Your task to perform on an android device: allow cookies in the chrome app Image 0: 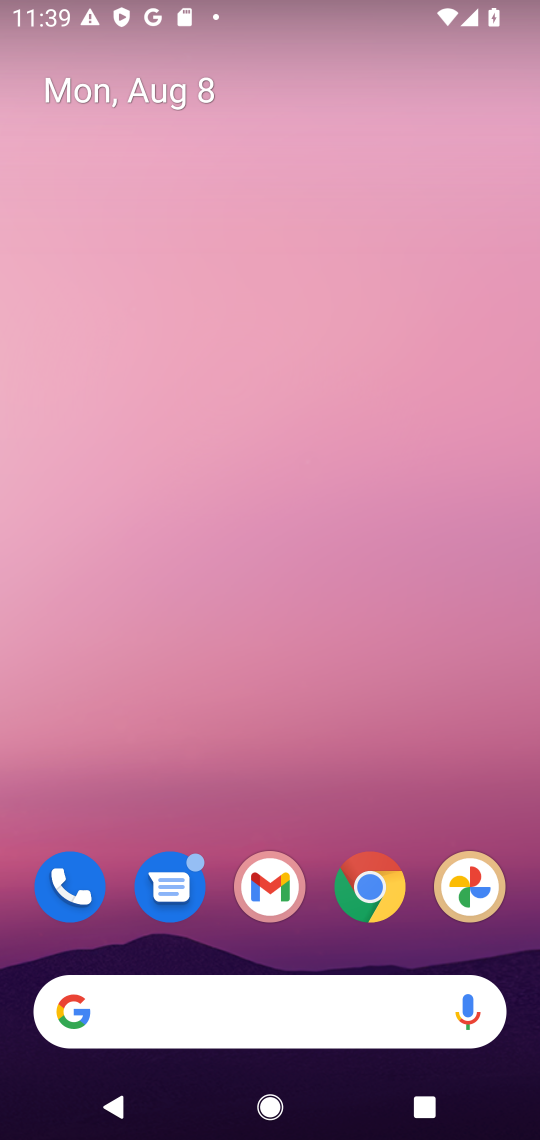
Step 0: click (374, 889)
Your task to perform on an android device: allow cookies in the chrome app Image 1: 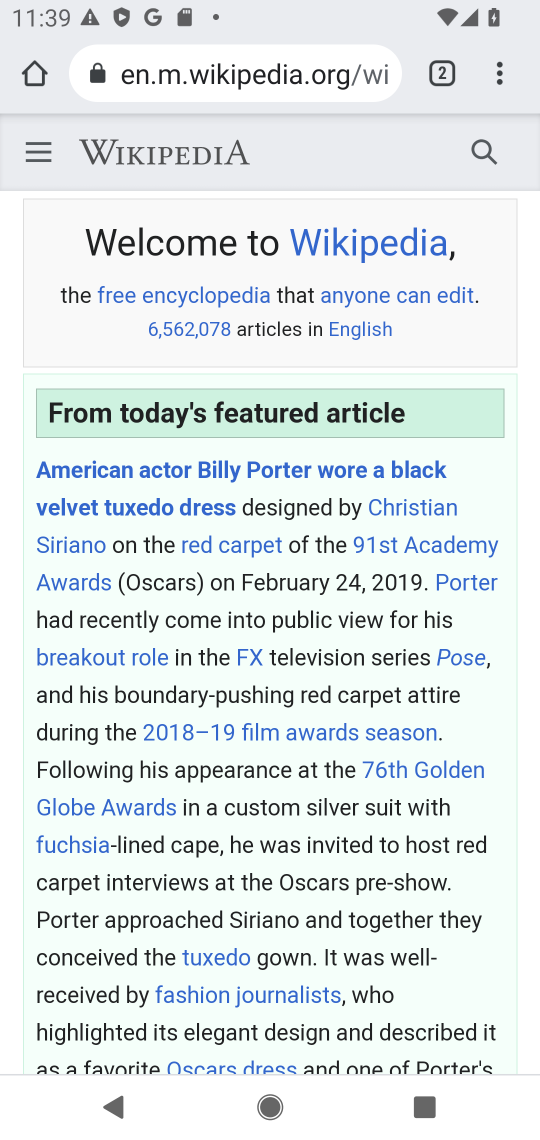
Step 1: click (502, 75)
Your task to perform on an android device: allow cookies in the chrome app Image 2: 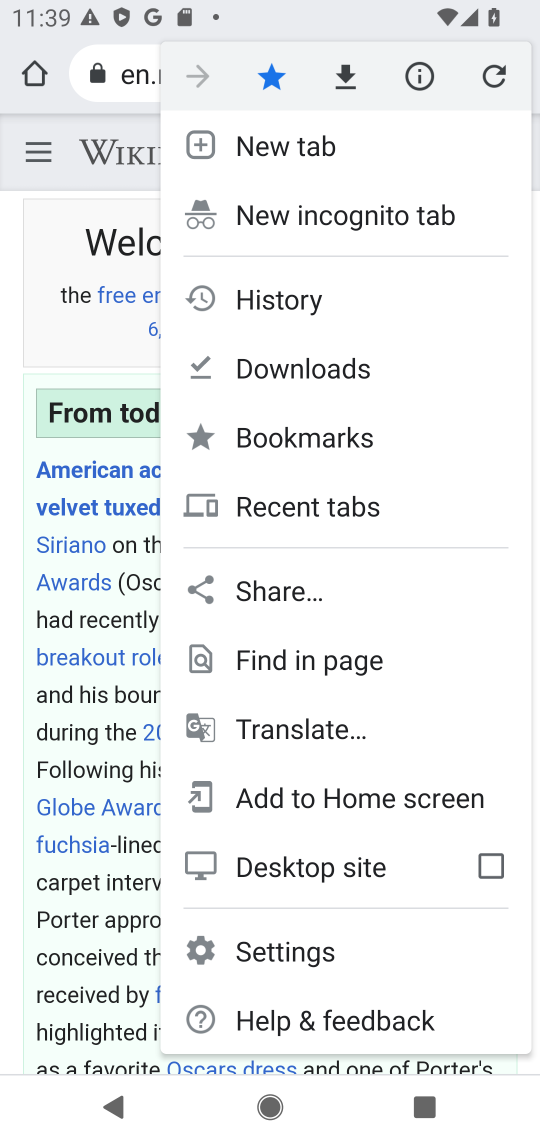
Step 2: click (290, 951)
Your task to perform on an android device: allow cookies in the chrome app Image 3: 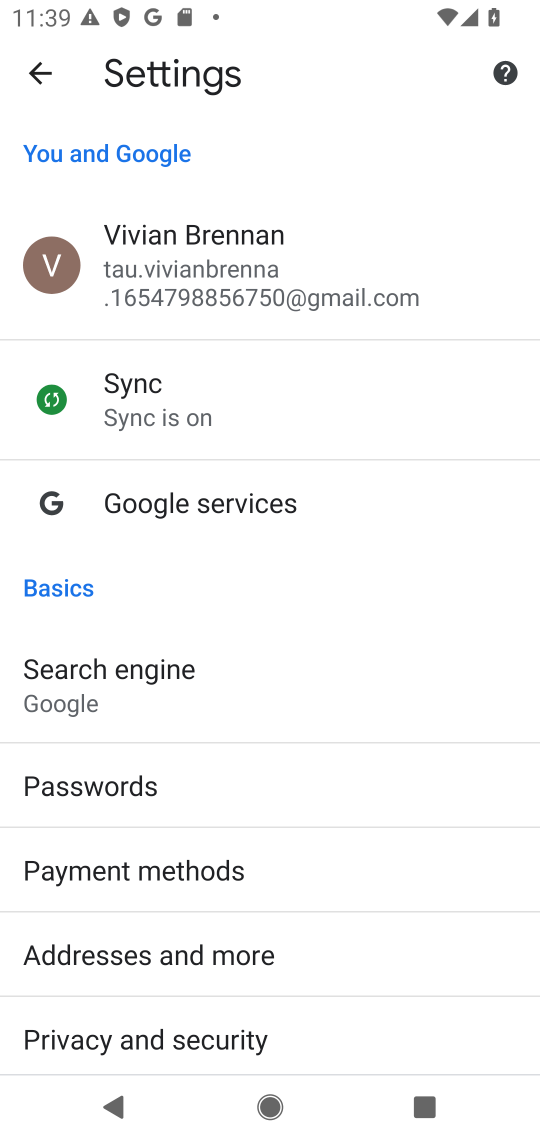
Step 3: drag from (345, 872) to (389, 302)
Your task to perform on an android device: allow cookies in the chrome app Image 4: 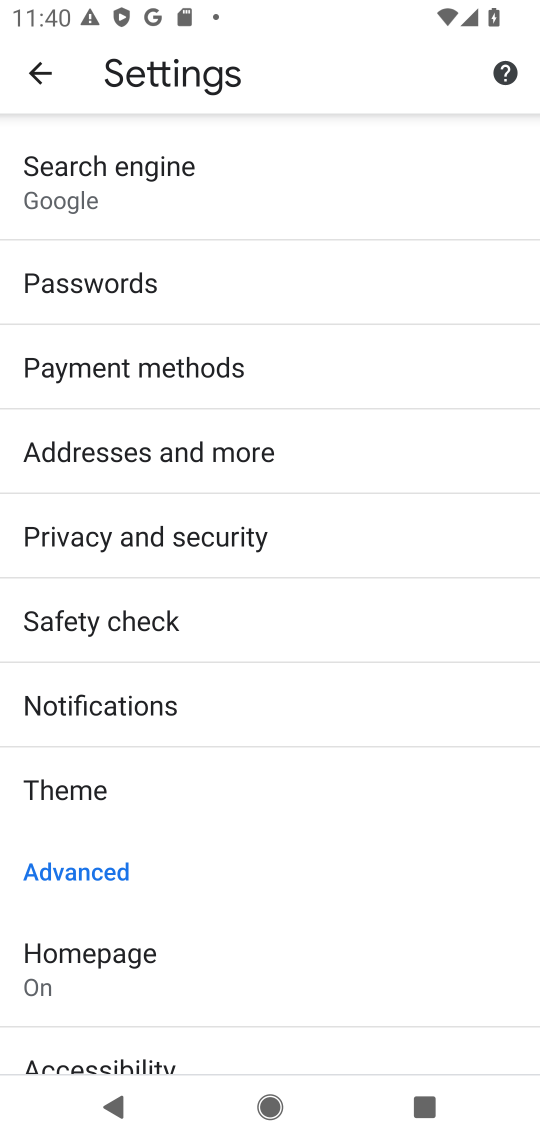
Step 4: drag from (365, 873) to (314, 282)
Your task to perform on an android device: allow cookies in the chrome app Image 5: 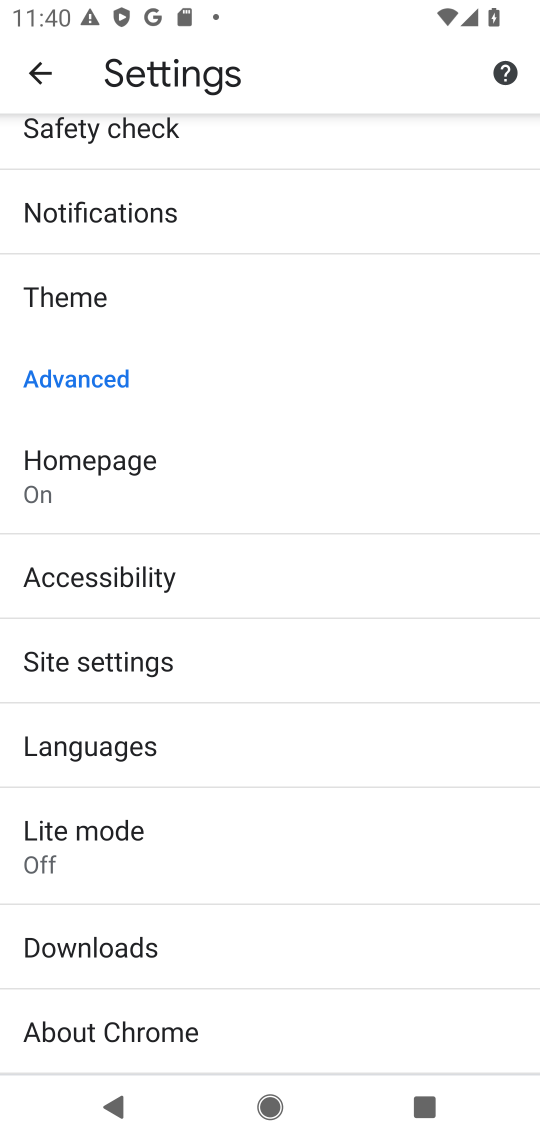
Step 5: click (93, 652)
Your task to perform on an android device: allow cookies in the chrome app Image 6: 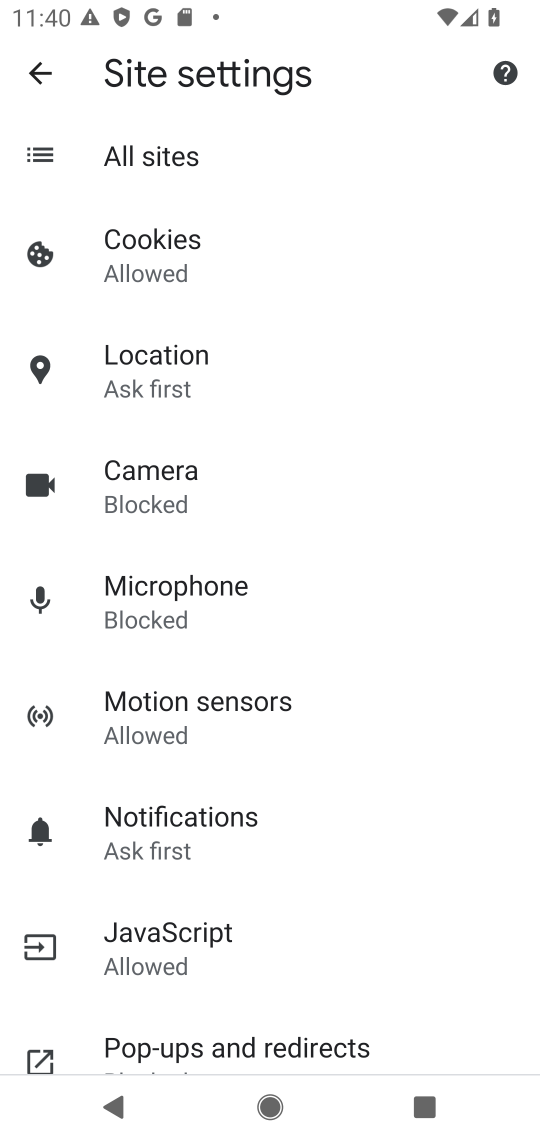
Step 6: click (155, 239)
Your task to perform on an android device: allow cookies in the chrome app Image 7: 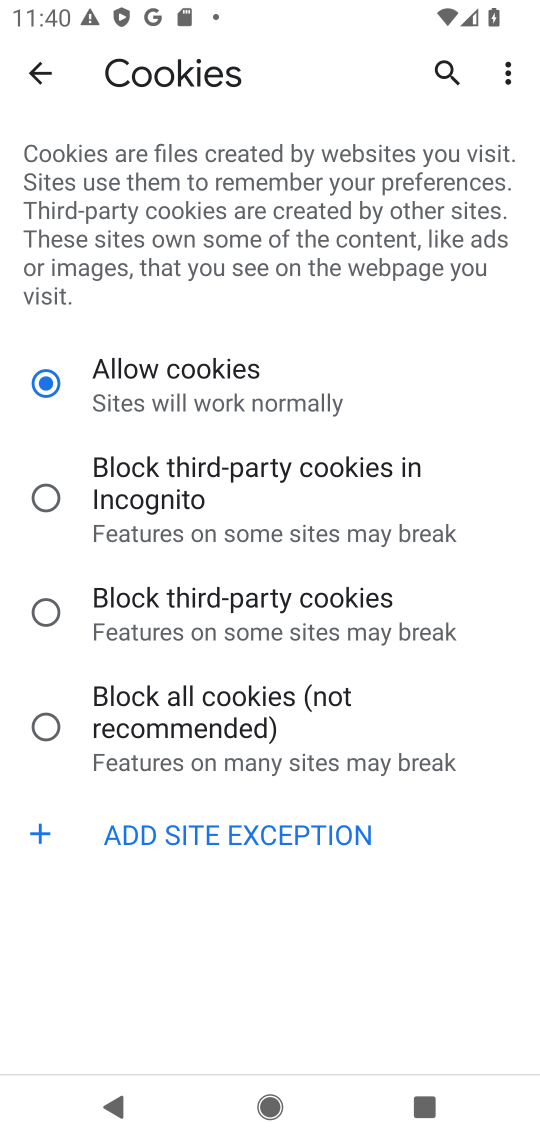
Step 7: task complete